Your task to perform on an android device: Go to wifi settings Image 0: 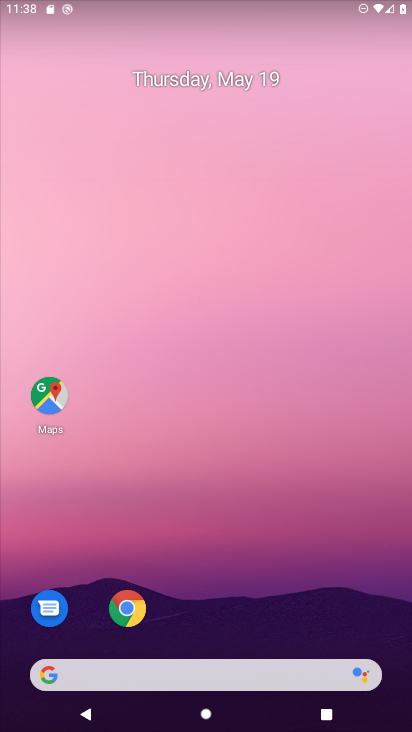
Step 0: drag from (130, 7) to (280, 606)
Your task to perform on an android device: Go to wifi settings Image 1: 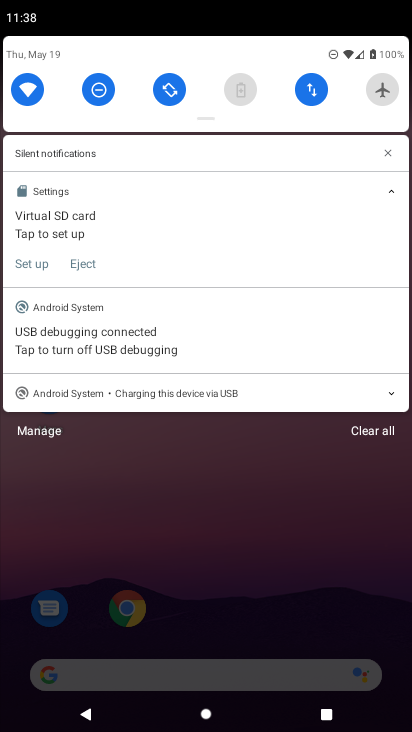
Step 1: click (34, 95)
Your task to perform on an android device: Go to wifi settings Image 2: 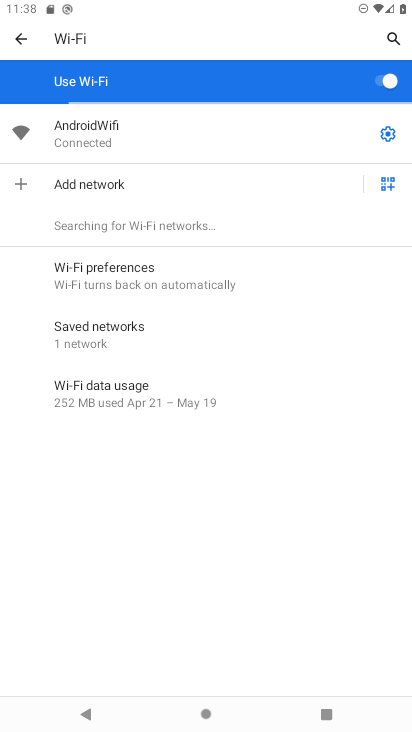
Step 2: task complete